Your task to perform on an android device: add a label to a message in the gmail app Image 0: 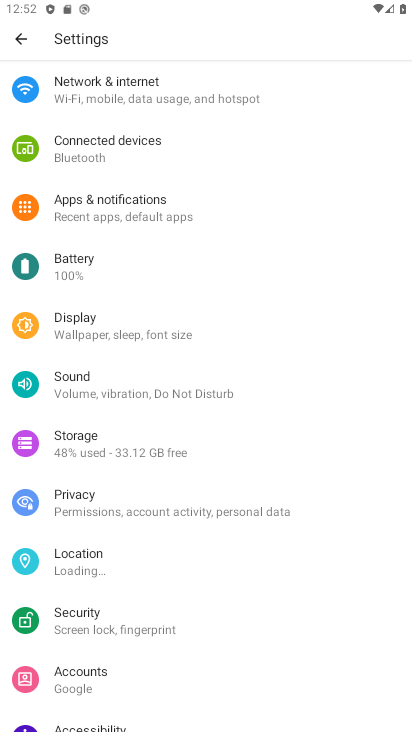
Step 0: press home button
Your task to perform on an android device: add a label to a message in the gmail app Image 1: 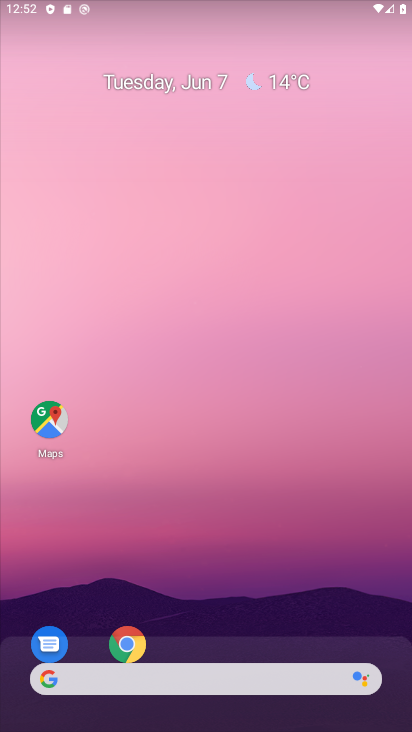
Step 1: drag from (147, 715) to (143, 13)
Your task to perform on an android device: add a label to a message in the gmail app Image 2: 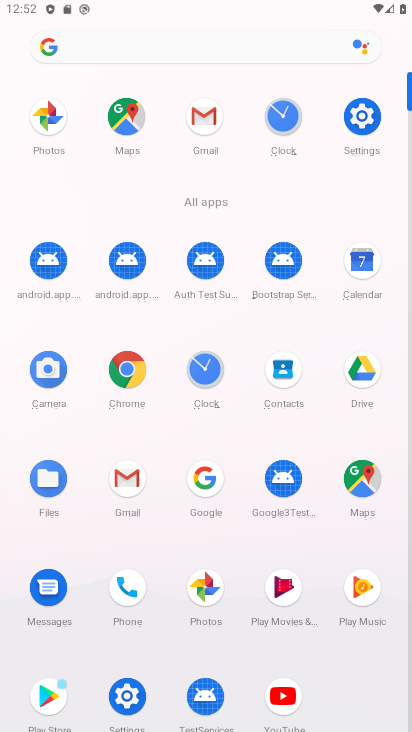
Step 2: click (201, 120)
Your task to perform on an android device: add a label to a message in the gmail app Image 3: 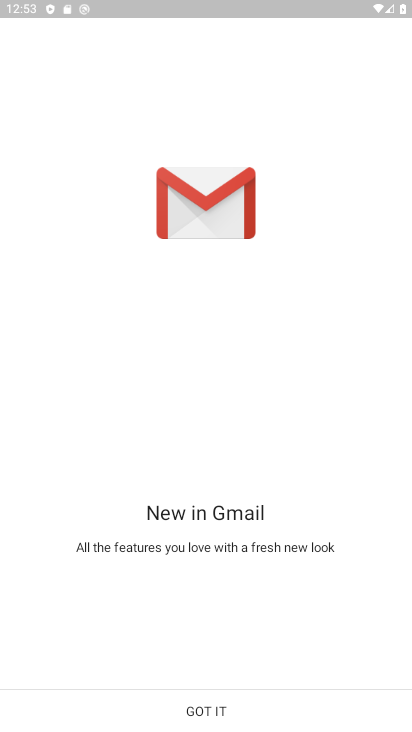
Step 3: click (218, 712)
Your task to perform on an android device: add a label to a message in the gmail app Image 4: 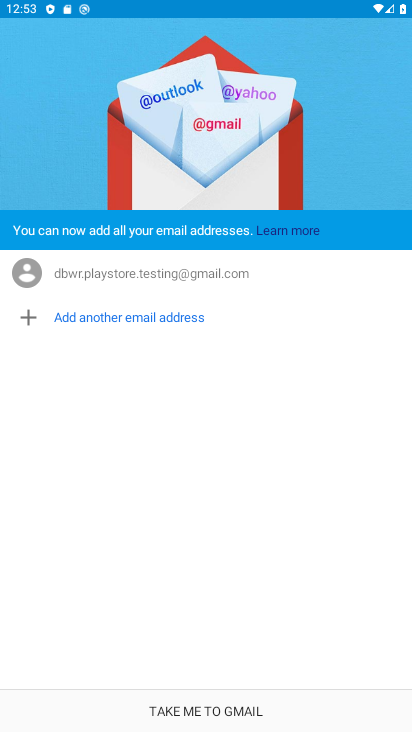
Step 4: click (252, 712)
Your task to perform on an android device: add a label to a message in the gmail app Image 5: 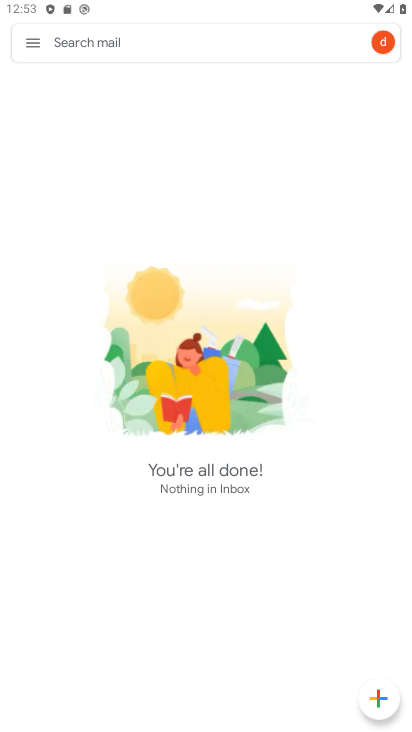
Step 5: click (30, 42)
Your task to perform on an android device: add a label to a message in the gmail app Image 6: 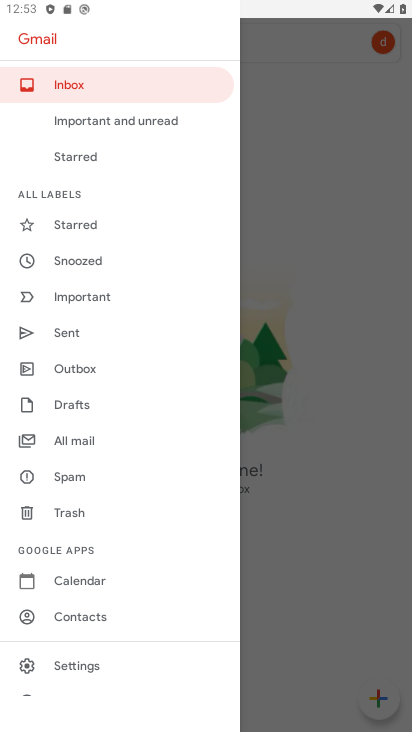
Step 6: click (63, 444)
Your task to perform on an android device: add a label to a message in the gmail app Image 7: 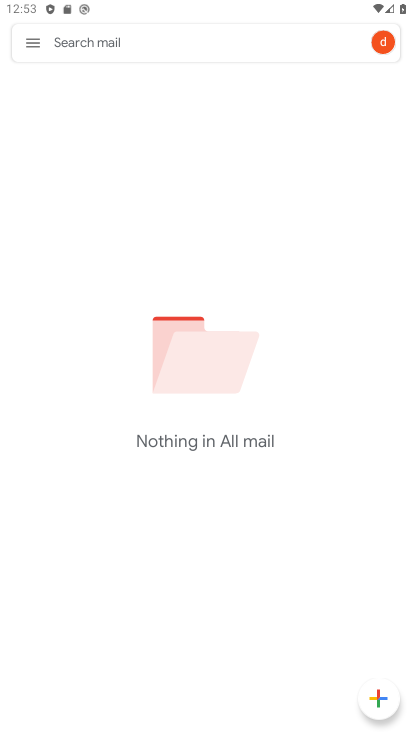
Step 7: task complete